Your task to perform on an android device: Go to Android settings Image 0: 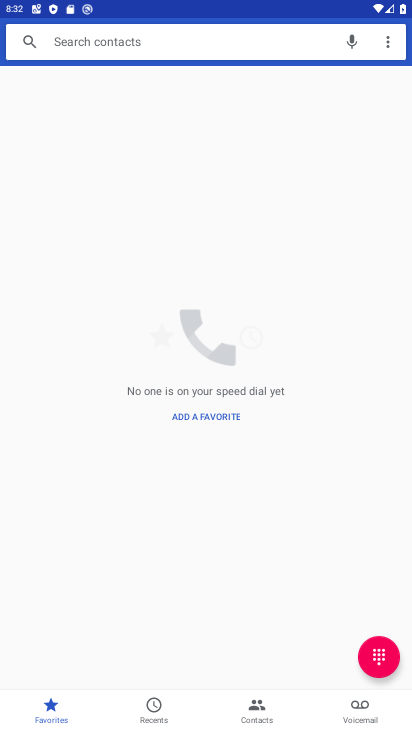
Step 0: press home button
Your task to perform on an android device: Go to Android settings Image 1: 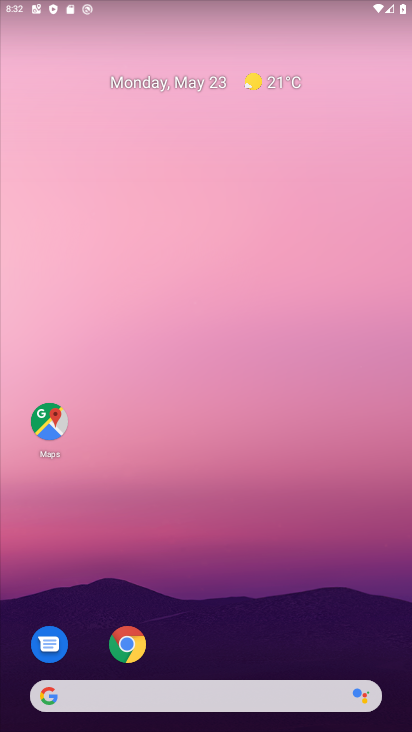
Step 1: drag from (186, 719) to (200, 28)
Your task to perform on an android device: Go to Android settings Image 2: 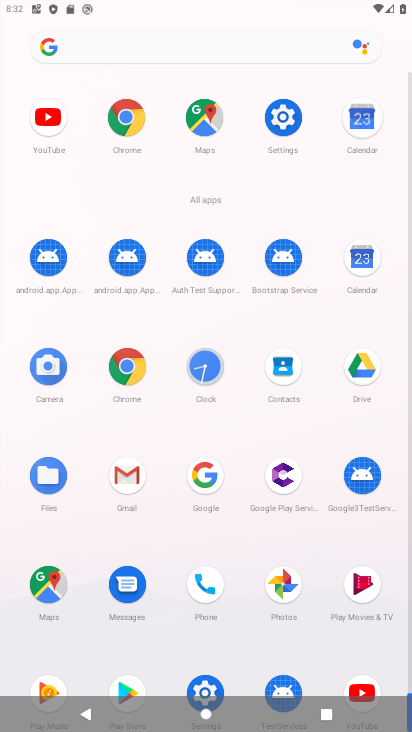
Step 2: click (282, 121)
Your task to perform on an android device: Go to Android settings Image 3: 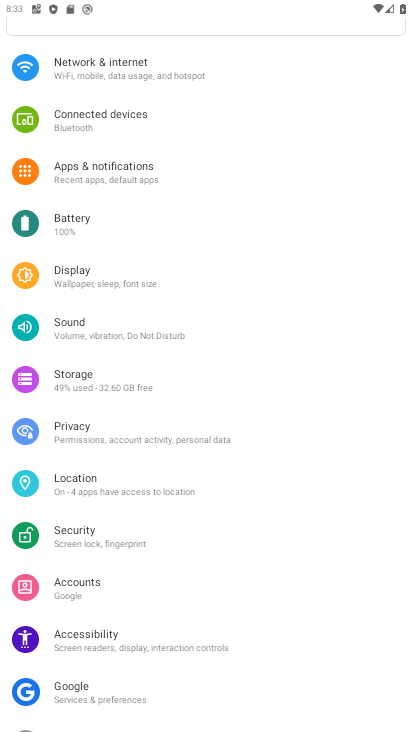
Step 3: task complete